Your task to perform on an android device: turn on notifications settings in the gmail app Image 0: 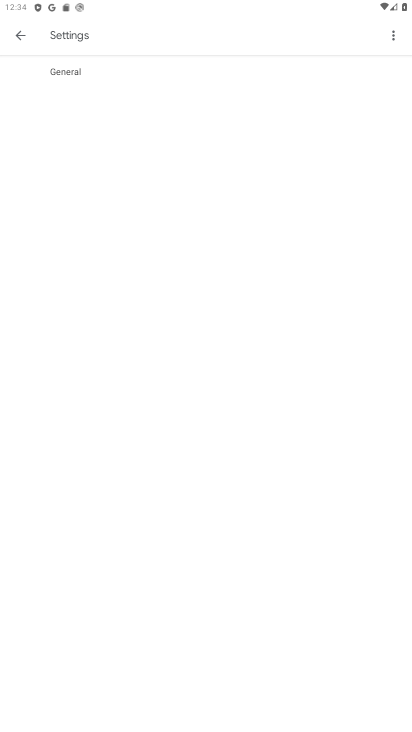
Step 0: press back button
Your task to perform on an android device: turn on notifications settings in the gmail app Image 1: 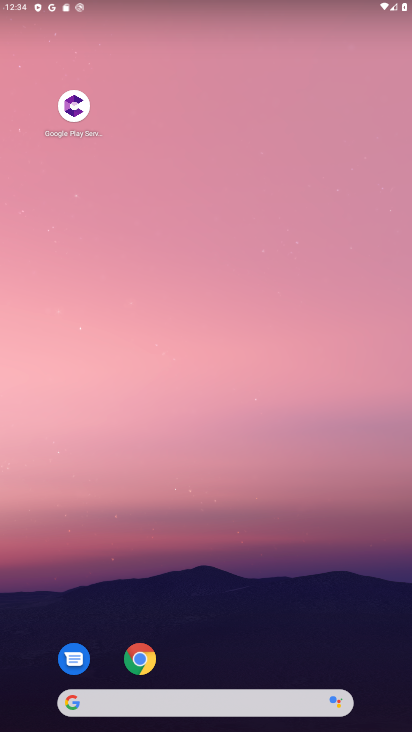
Step 1: click (98, 152)
Your task to perform on an android device: turn on notifications settings in the gmail app Image 2: 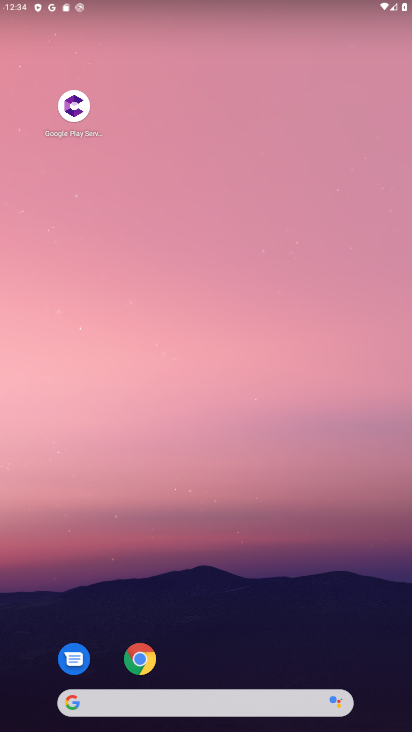
Step 2: drag from (152, 16) to (116, 82)
Your task to perform on an android device: turn on notifications settings in the gmail app Image 3: 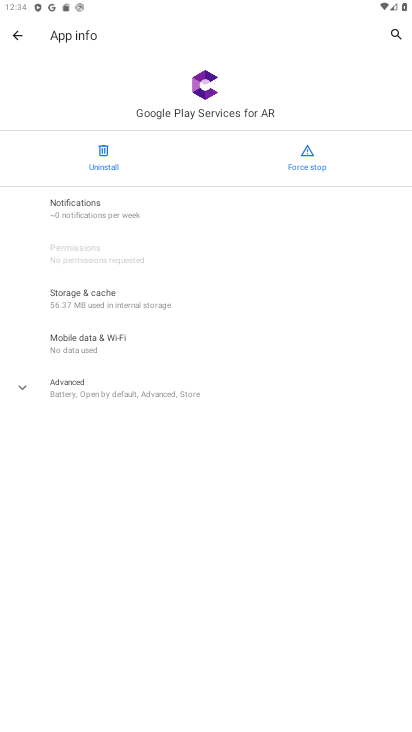
Step 3: click (15, 31)
Your task to perform on an android device: turn on notifications settings in the gmail app Image 4: 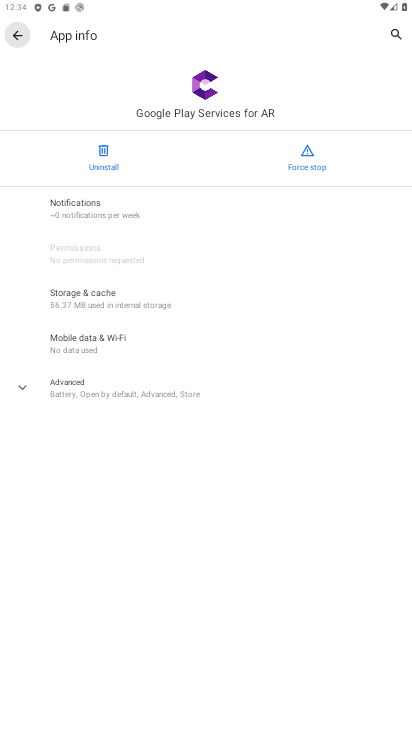
Step 4: click (13, 30)
Your task to perform on an android device: turn on notifications settings in the gmail app Image 5: 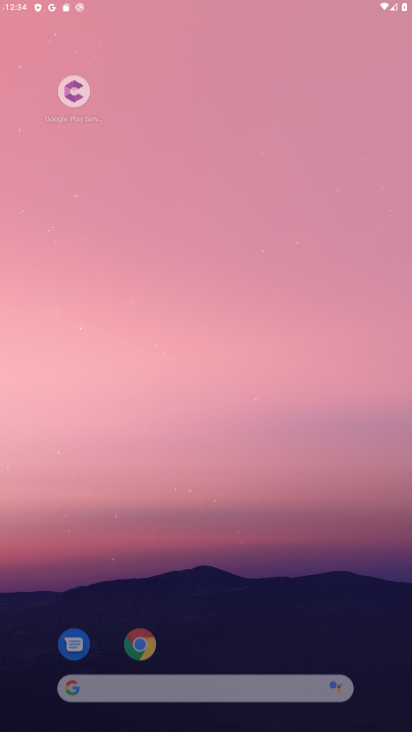
Step 5: click (13, 31)
Your task to perform on an android device: turn on notifications settings in the gmail app Image 6: 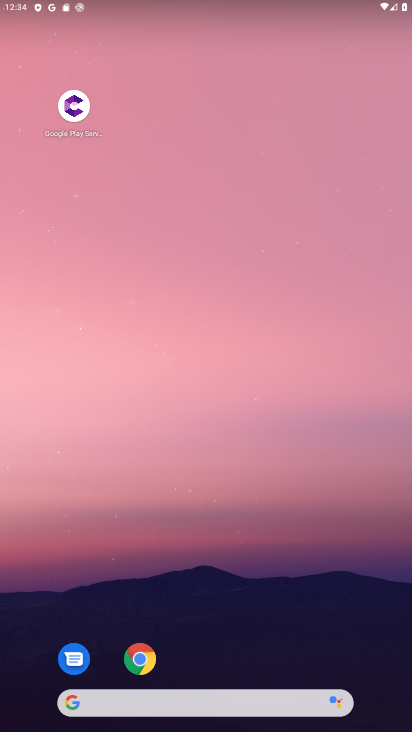
Step 6: drag from (104, 576) to (104, 205)
Your task to perform on an android device: turn on notifications settings in the gmail app Image 7: 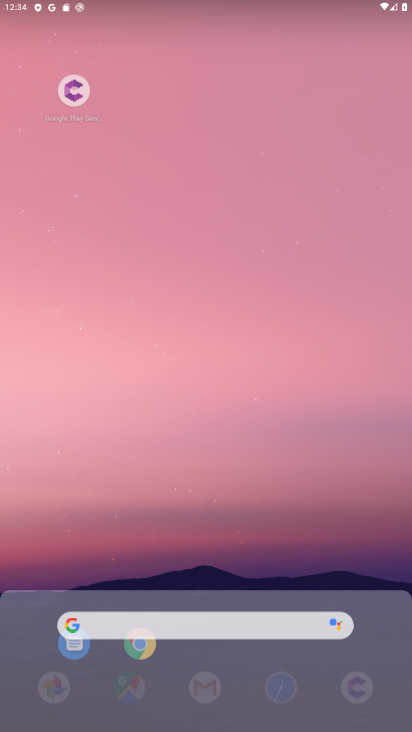
Step 7: drag from (163, 434) to (129, 160)
Your task to perform on an android device: turn on notifications settings in the gmail app Image 8: 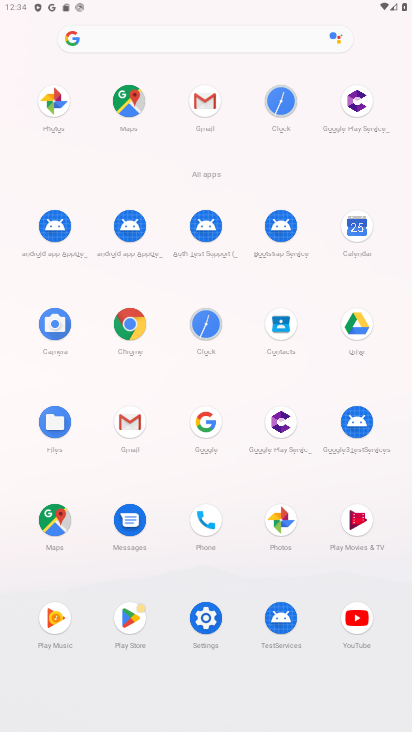
Step 8: click (173, 167)
Your task to perform on an android device: turn on notifications settings in the gmail app Image 9: 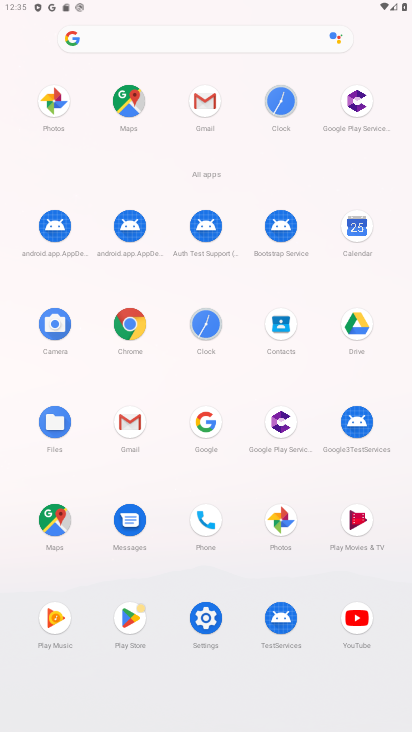
Step 9: click (127, 410)
Your task to perform on an android device: turn on notifications settings in the gmail app Image 10: 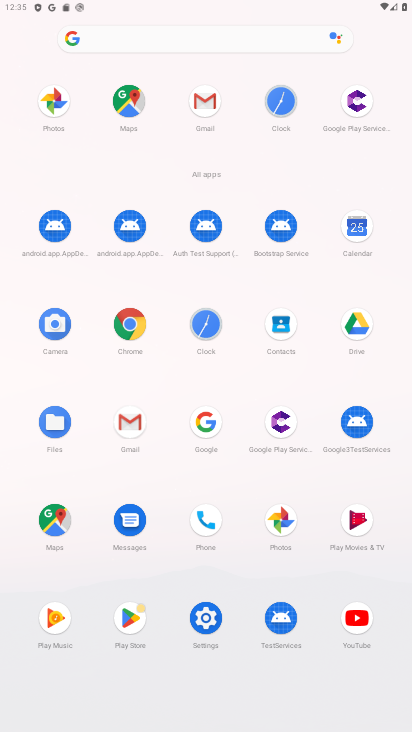
Step 10: click (127, 410)
Your task to perform on an android device: turn on notifications settings in the gmail app Image 11: 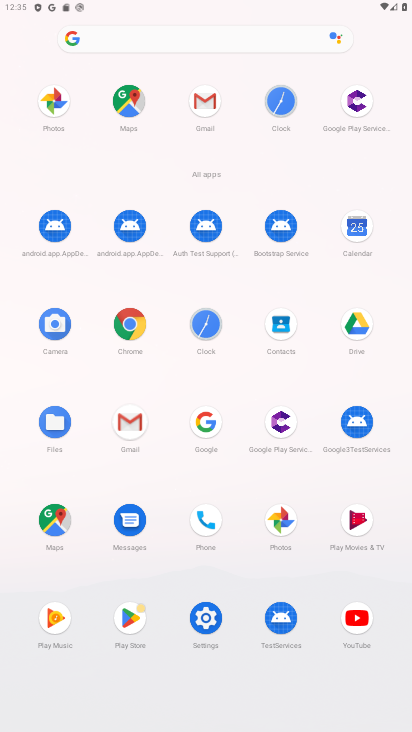
Step 11: click (128, 411)
Your task to perform on an android device: turn on notifications settings in the gmail app Image 12: 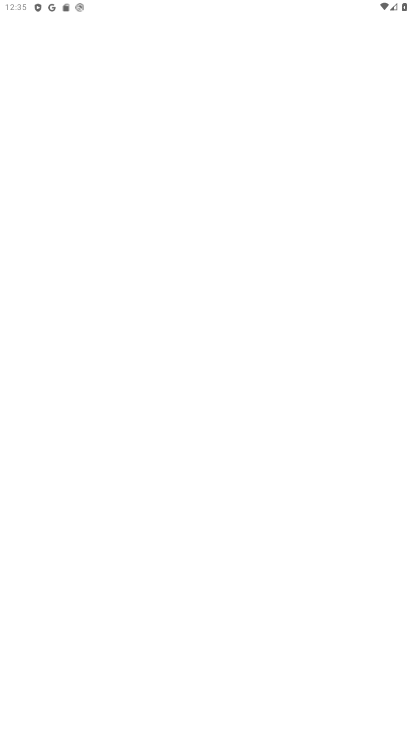
Step 12: click (131, 416)
Your task to perform on an android device: turn on notifications settings in the gmail app Image 13: 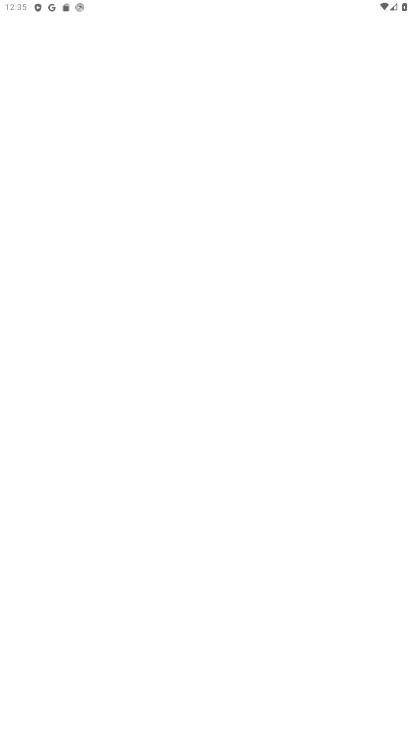
Step 13: click (131, 416)
Your task to perform on an android device: turn on notifications settings in the gmail app Image 14: 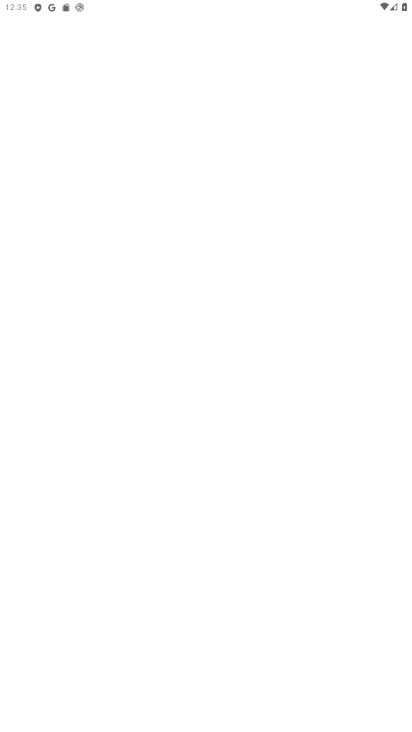
Step 14: click (132, 417)
Your task to perform on an android device: turn on notifications settings in the gmail app Image 15: 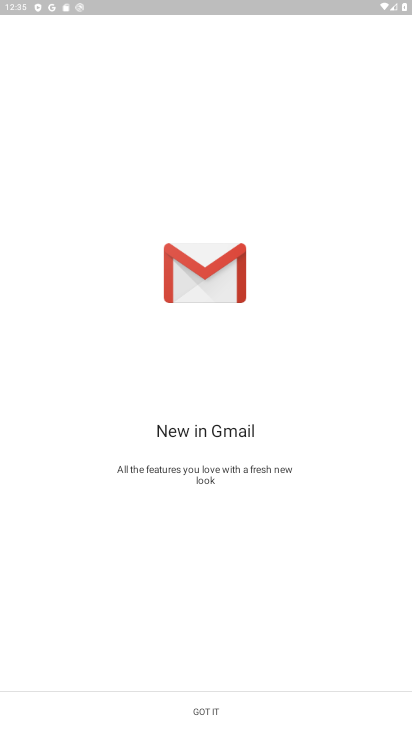
Step 15: click (186, 713)
Your task to perform on an android device: turn on notifications settings in the gmail app Image 16: 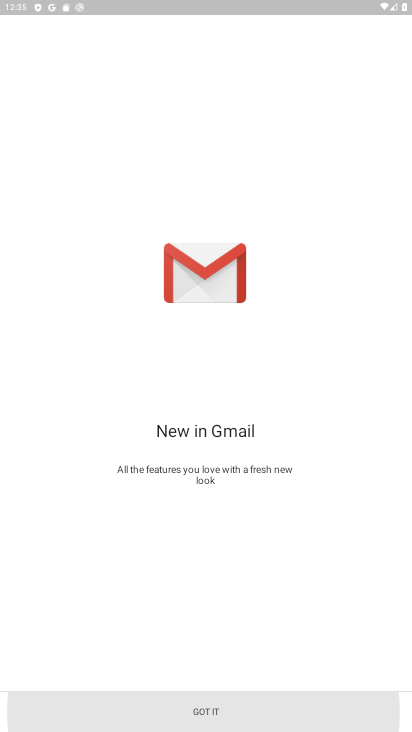
Step 16: click (195, 703)
Your task to perform on an android device: turn on notifications settings in the gmail app Image 17: 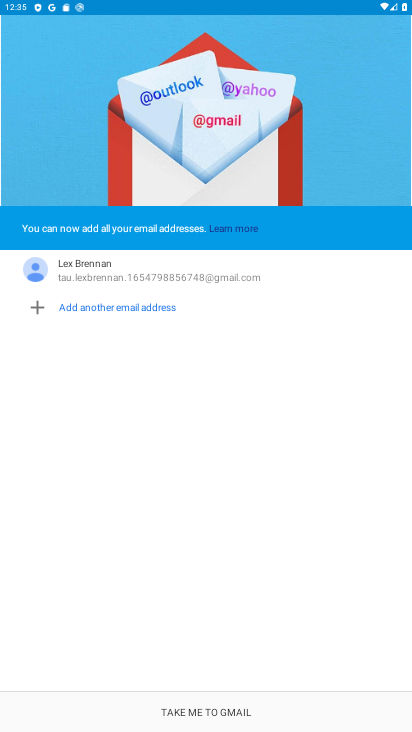
Step 17: click (205, 706)
Your task to perform on an android device: turn on notifications settings in the gmail app Image 18: 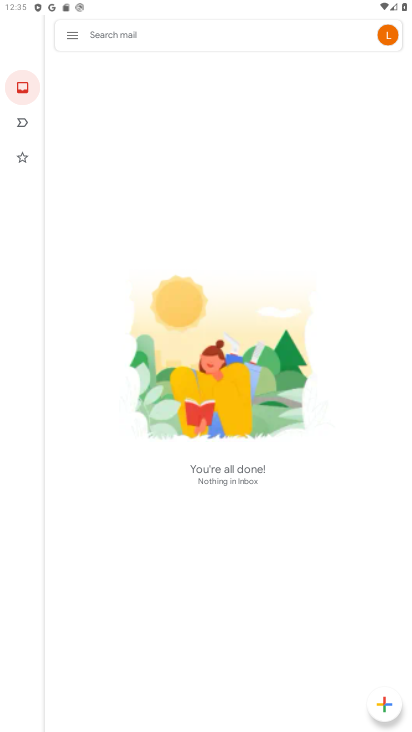
Step 18: click (71, 37)
Your task to perform on an android device: turn on notifications settings in the gmail app Image 19: 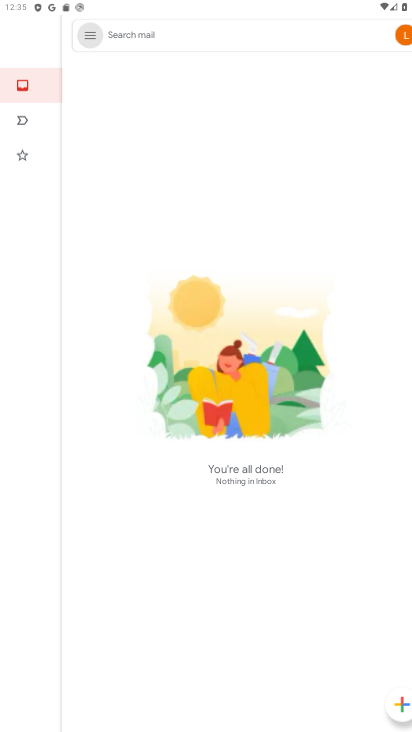
Step 19: click (75, 30)
Your task to perform on an android device: turn on notifications settings in the gmail app Image 20: 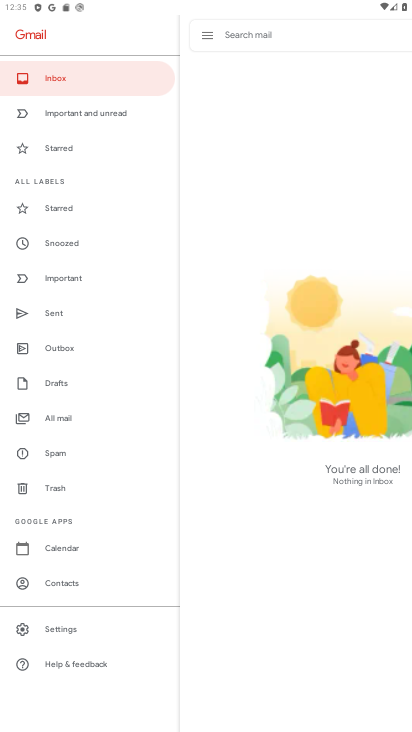
Step 20: click (50, 629)
Your task to perform on an android device: turn on notifications settings in the gmail app Image 21: 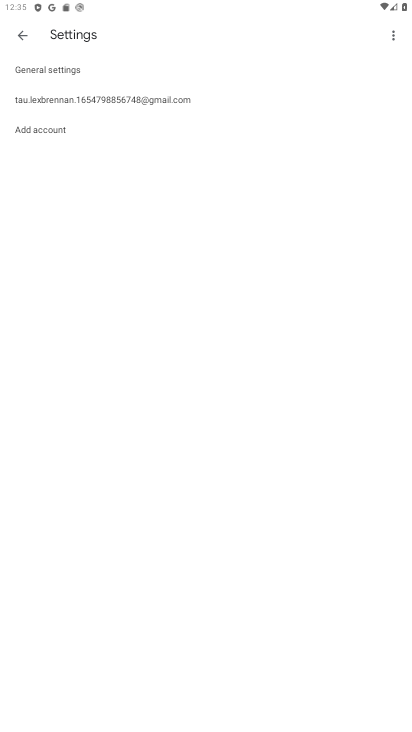
Step 21: click (61, 89)
Your task to perform on an android device: turn on notifications settings in the gmail app Image 22: 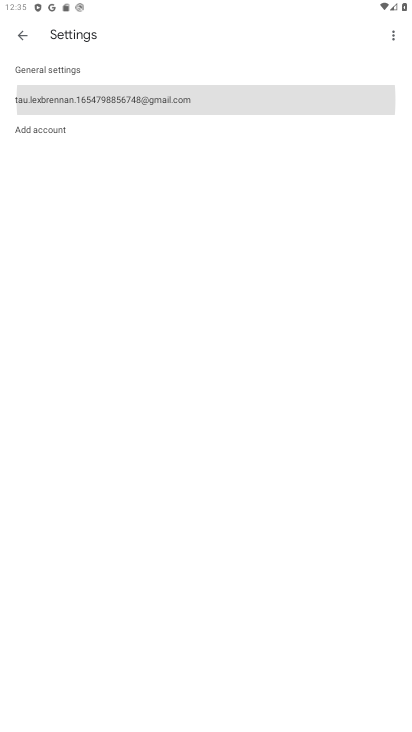
Step 22: click (62, 93)
Your task to perform on an android device: turn on notifications settings in the gmail app Image 23: 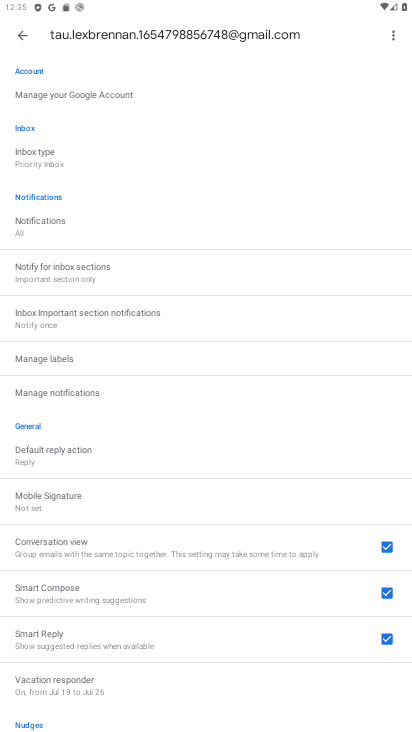
Step 23: click (40, 216)
Your task to perform on an android device: turn on notifications settings in the gmail app Image 24: 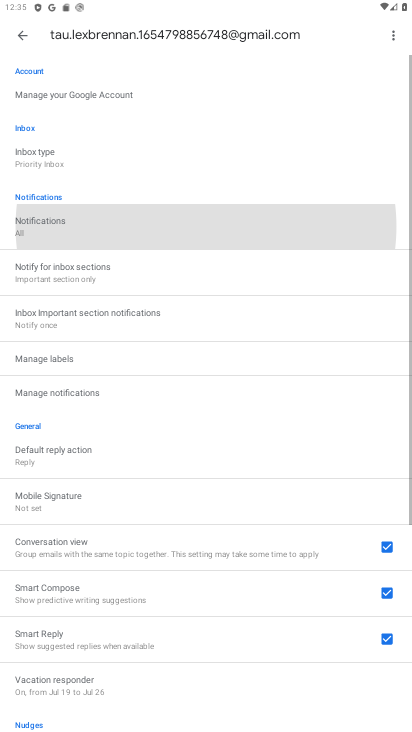
Step 24: click (40, 216)
Your task to perform on an android device: turn on notifications settings in the gmail app Image 25: 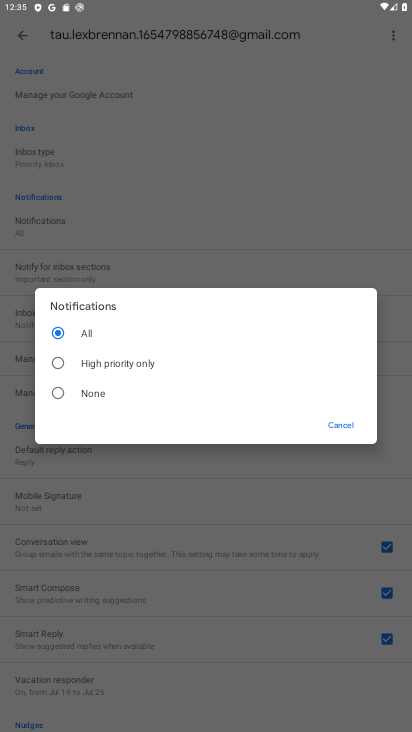
Step 25: click (332, 418)
Your task to perform on an android device: turn on notifications settings in the gmail app Image 26: 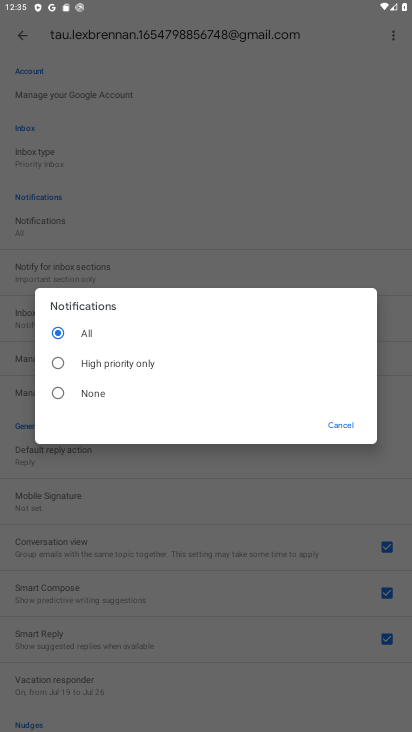
Step 26: task complete